Your task to perform on an android device: See recent photos Image 0: 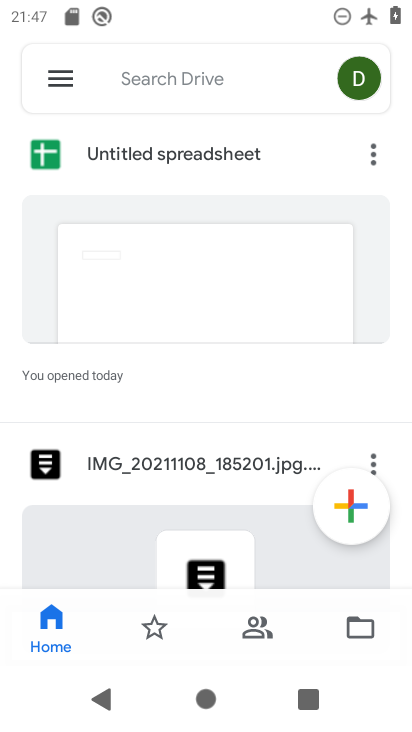
Step 0: press home button
Your task to perform on an android device: See recent photos Image 1: 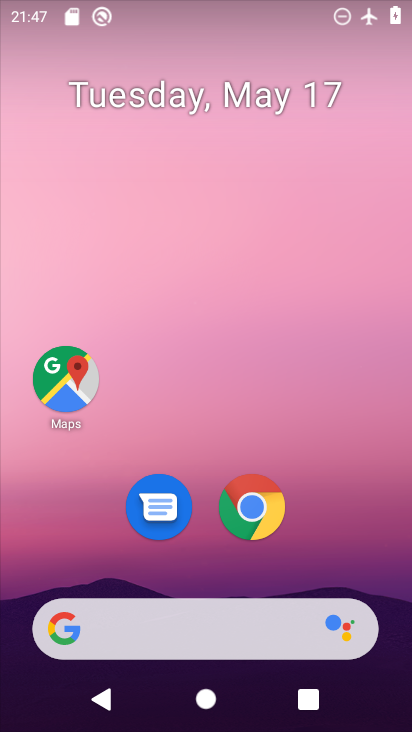
Step 1: drag from (363, 510) to (372, 9)
Your task to perform on an android device: See recent photos Image 2: 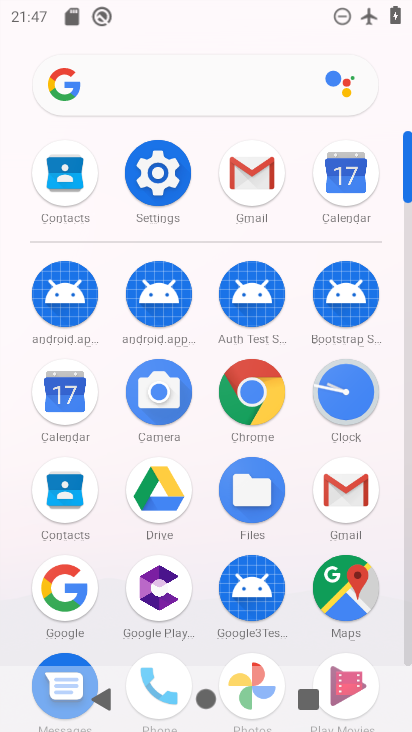
Step 2: click (407, 604)
Your task to perform on an android device: See recent photos Image 3: 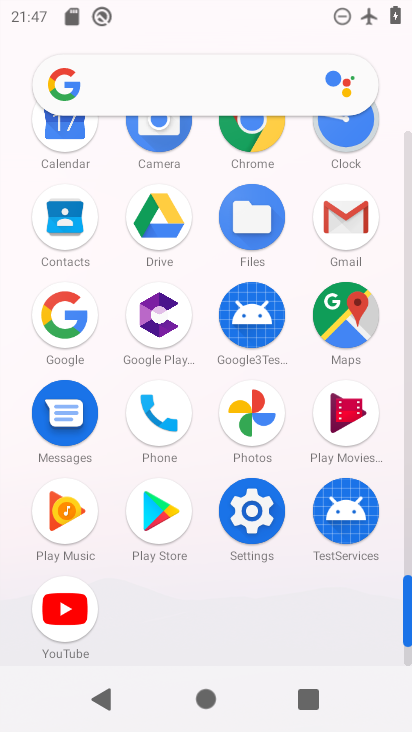
Step 3: click (244, 411)
Your task to perform on an android device: See recent photos Image 4: 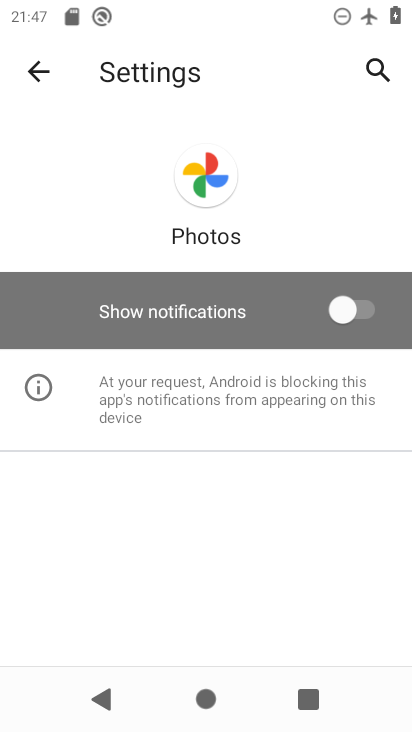
Step 4: click (30, 77)
Your task to perform on an android device: See recent photos Image 5: 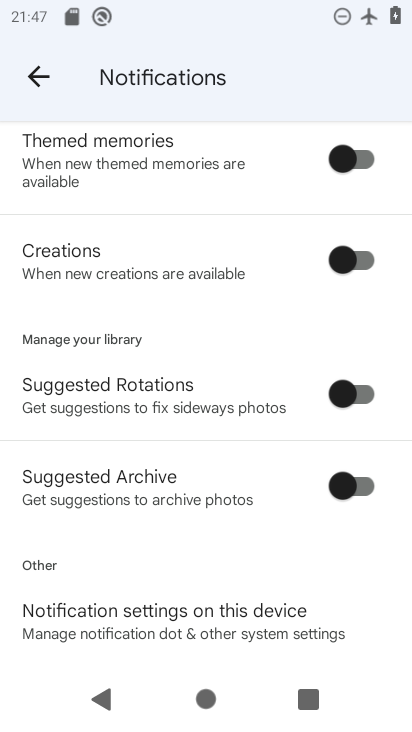
Step 5: click (34, 74)
Your task to perform on an android device: See recent photos Image 6: 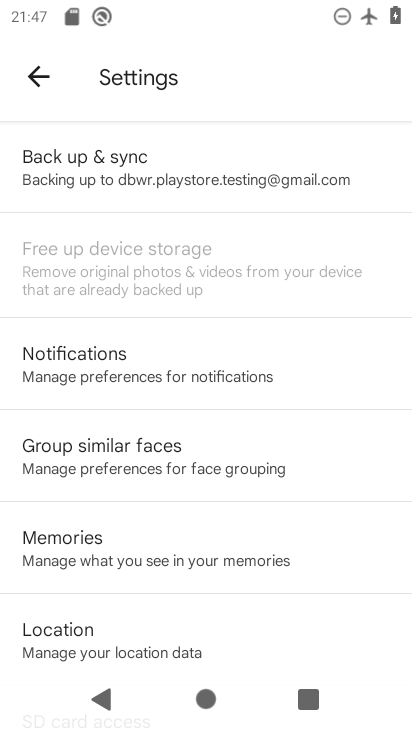
Step 6: click (34, 74)
Your task to perform on an android device: See recent photos Image 7: 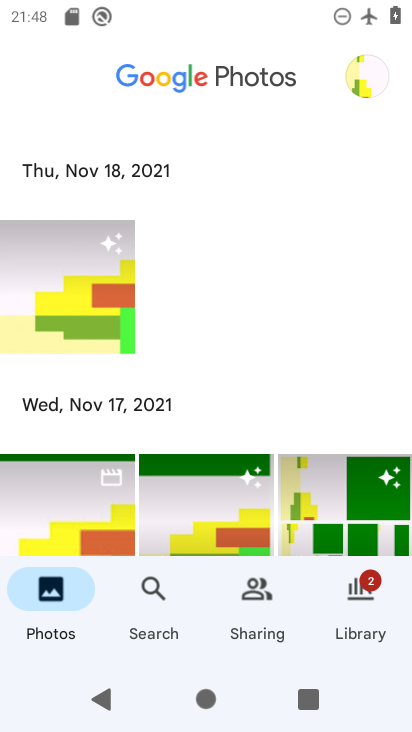
Step 7: click (372, 623)
Your task to perform on an android device: See recent photos Image 8: 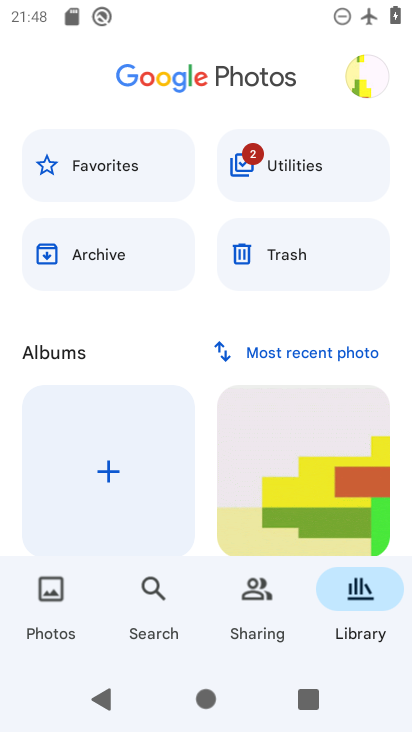
Step 8: task complete